Your task to perform on an android device: Search for pizza restaurants on Maps Image 0: 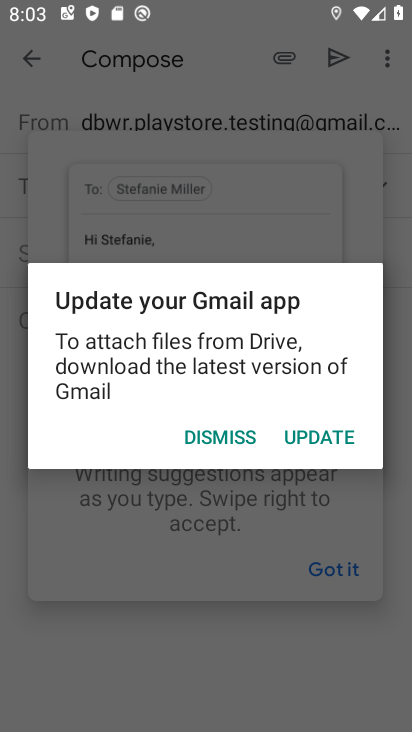
Step 0: press home button
Your task to perform on an android device: Search for pizza restaurants on Maps Image 1: 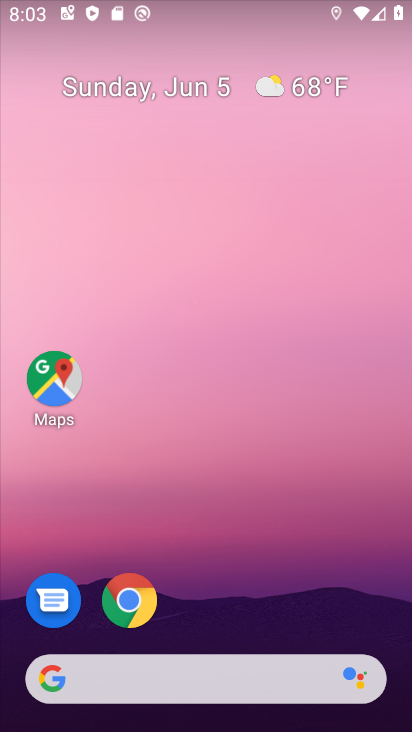
Step 1: click (45, 393)
Your task to perform on an android device: Search for pizza restaurants on Maps Image 2: 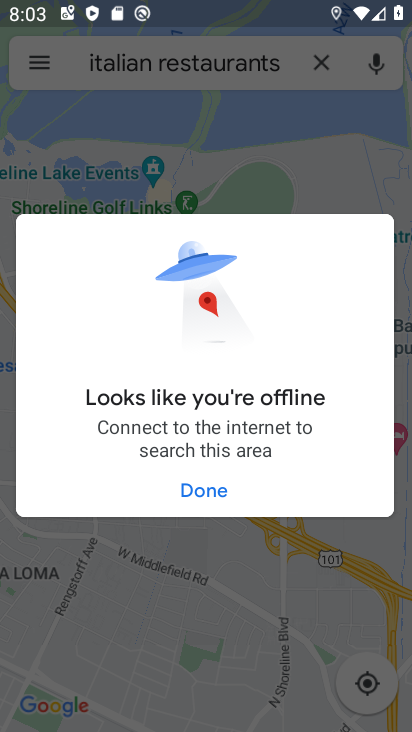
Step 2: click (316, 63)
Your task to perform on an android device: Search for pizza restaurants on Maps Image 3: 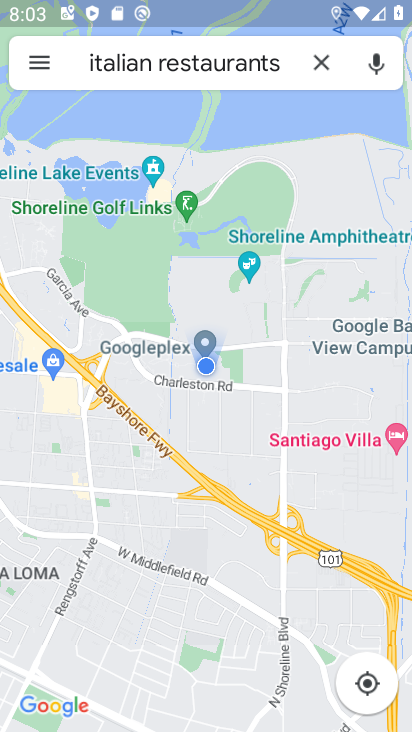
Step 3: click (320, 64)
Your task to perform on an android device: Search for pizza restaurants on Maps Image 4: 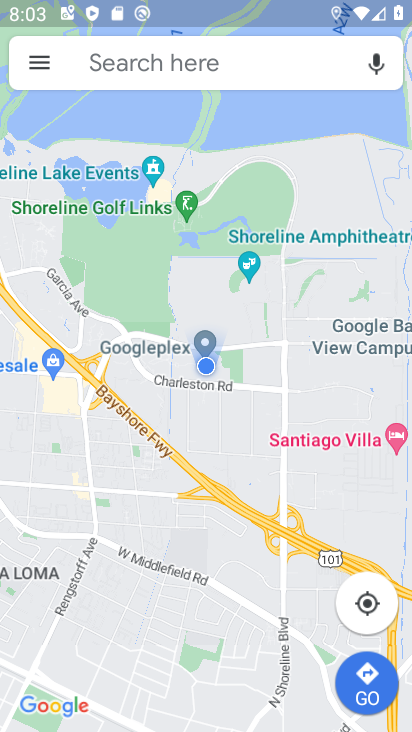
Step 4: click (243, 60)
Your task to perform on an android device: Search for pizza restaurants on Maps Image 5: 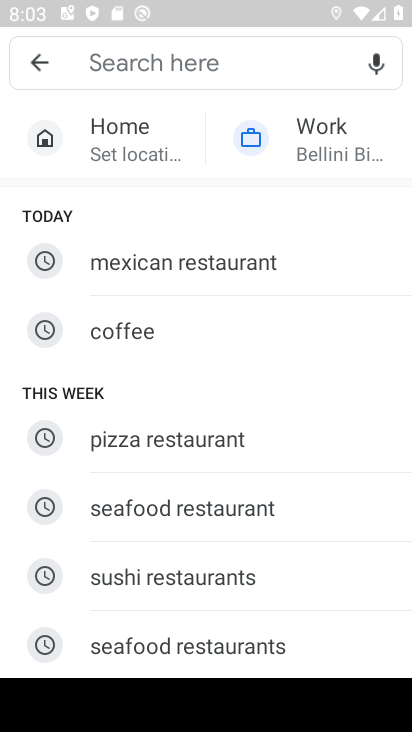
Step 5: click (202, 433)
Your task to perform on an android device: Search for pizza restaurants on Maps Image 6: 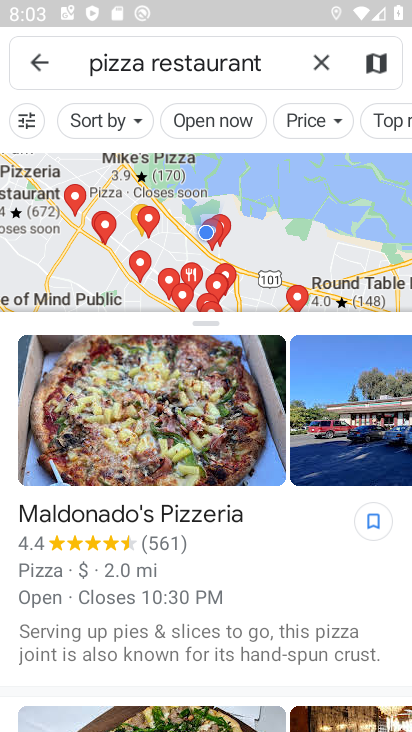
Step 6: task complete